Your task to perform on an android device: add a label to a message in the gmail app Image 0: 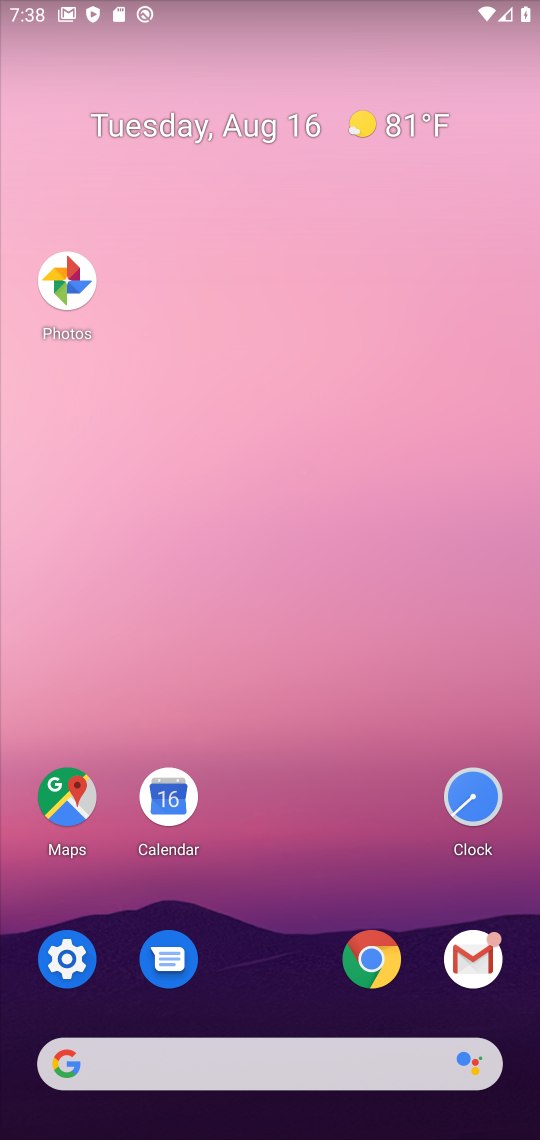
Step 0: click (478, 964)
Your task to perform on an android device: add a label to a message in the gmail app Image 1: 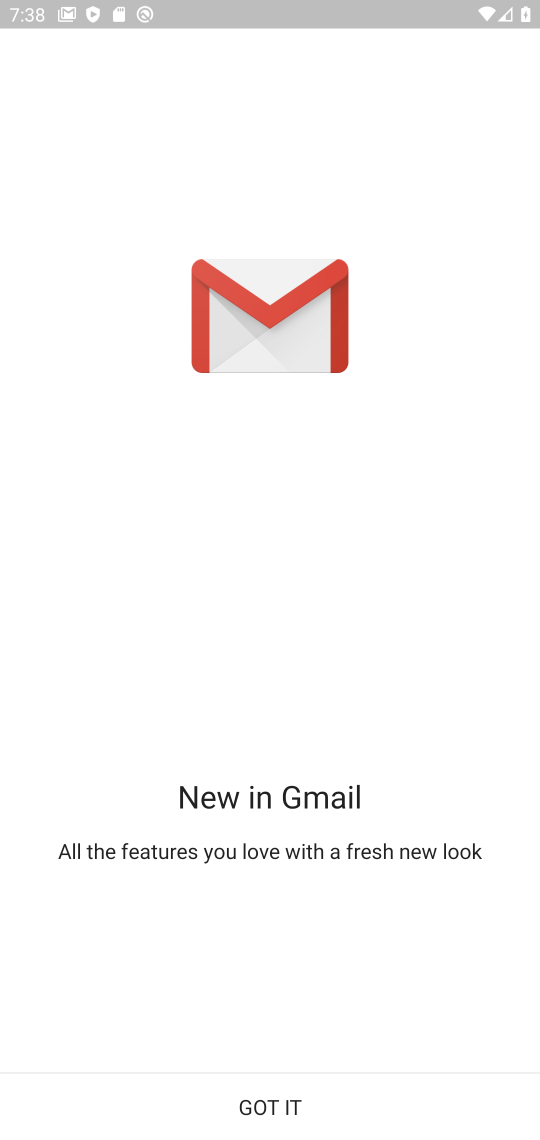
Step 1: click (260, 1105)
Your task to perform on an android device: add a label to a message in the gmail app Image 2: 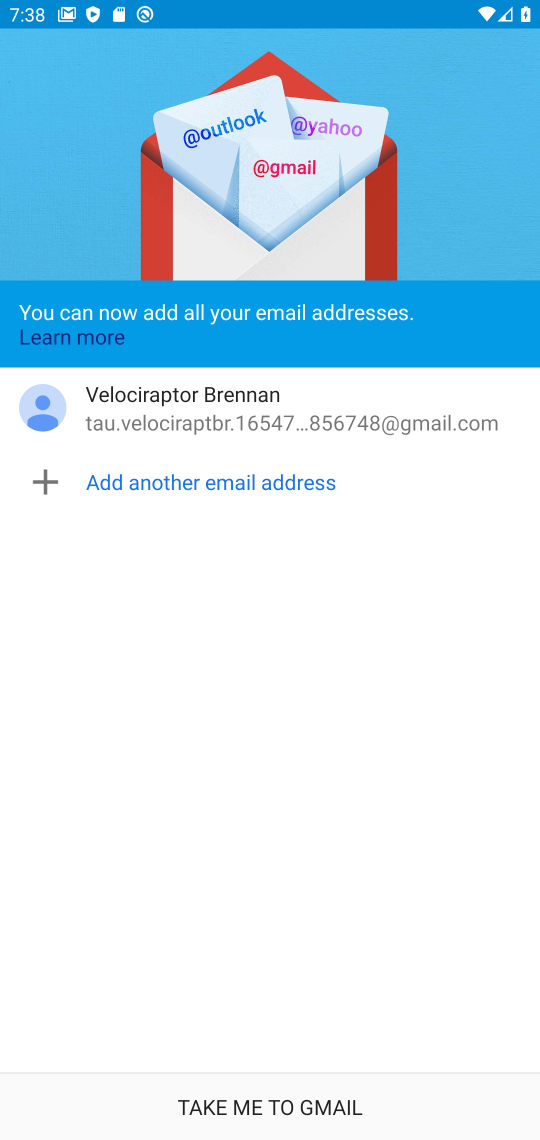
Step 2: click (260, 1105)
Your task to perform on an android device: add a label to a message in the gmail app Image 3: 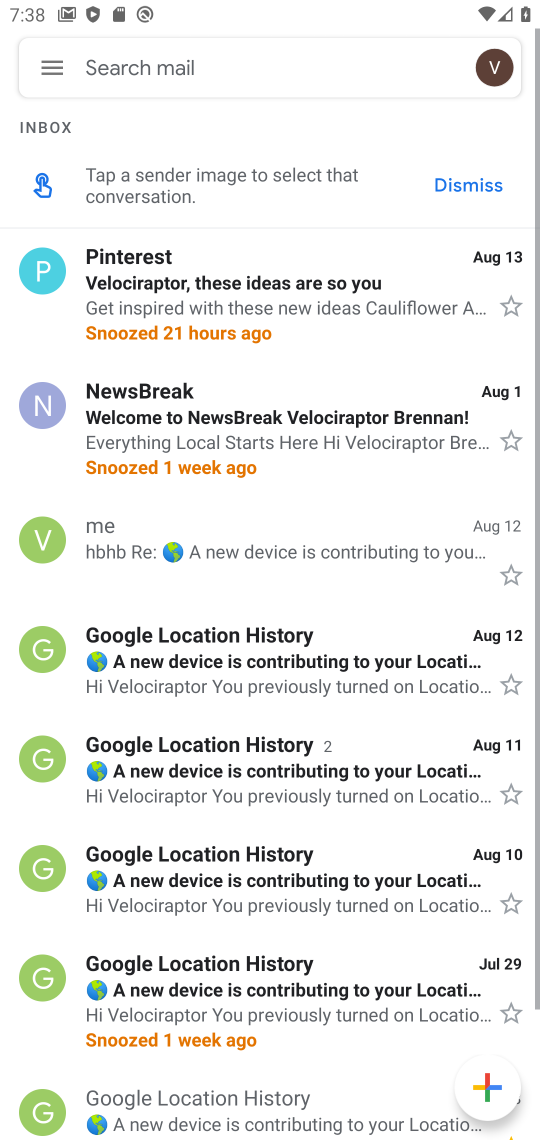
Step 3: click (177, 298)
Your task to perform on an android device: add a label to a message in the gmail app Image 4: 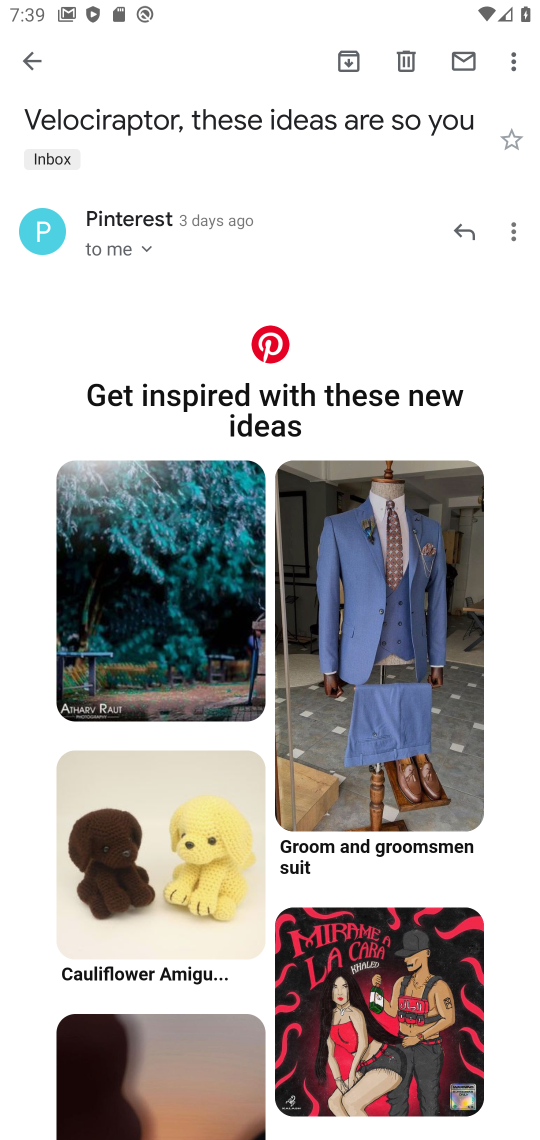
Step 4: click (515, 51)
Your task to perform on an android device: add a label to a message in the gmail app Image 5: 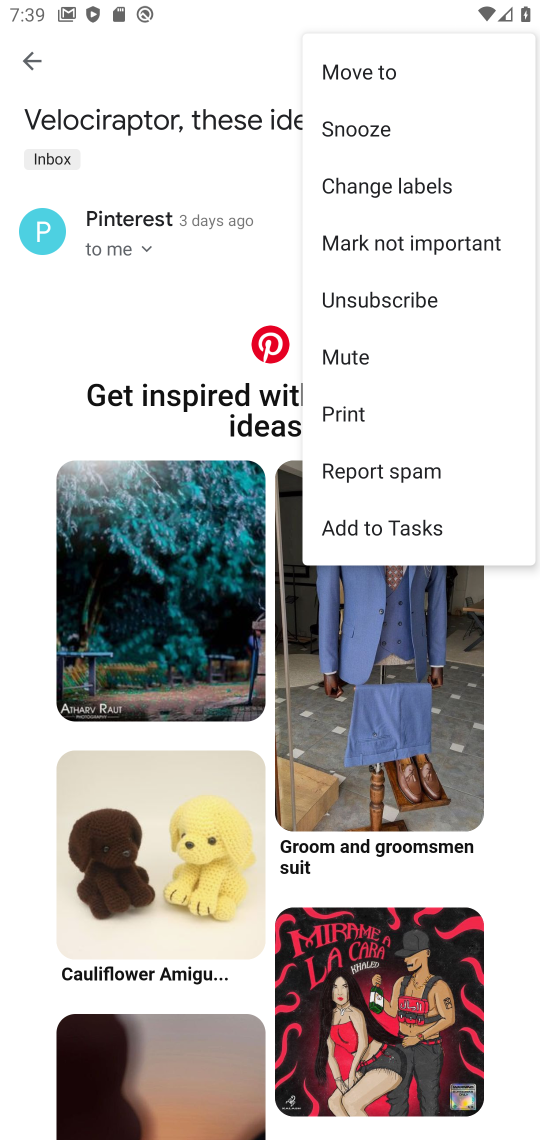
Step 5: click (398, 184)
Your task to perform on an android device: add a label to a message in the gmail app Image 6: 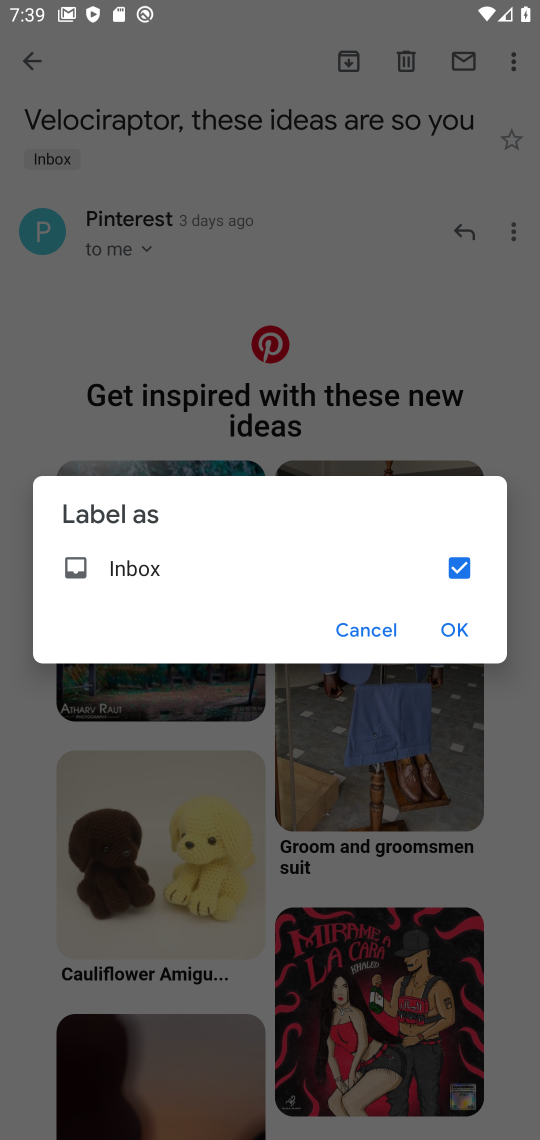
Step 6: click (453, 630)
Your task to perform on an android device: add a label to a message in the gmail app Image 7: 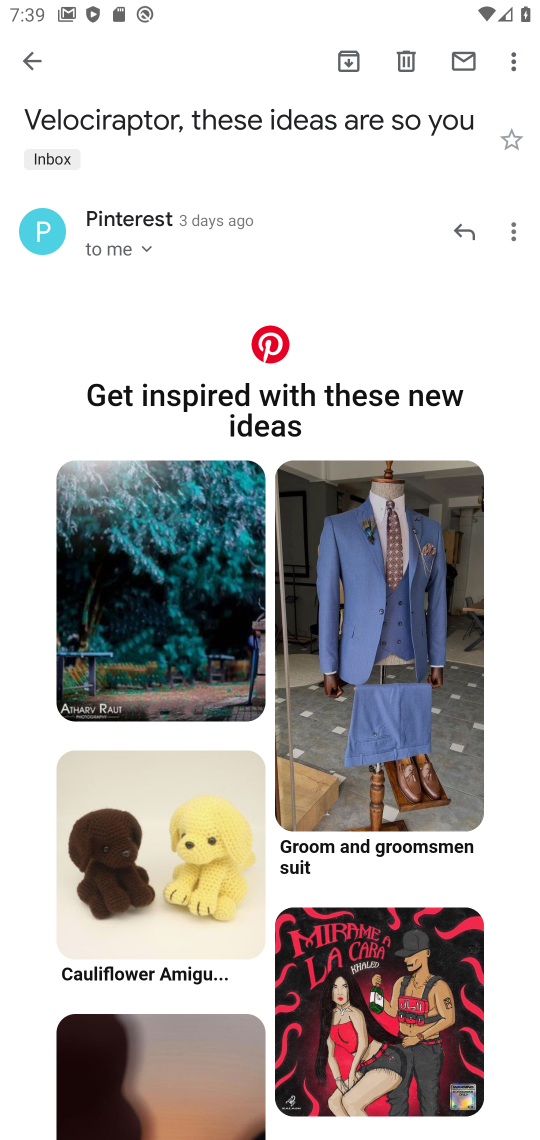
Step 7: task complete